Your task to perform on an android device: Open maps Image 0: 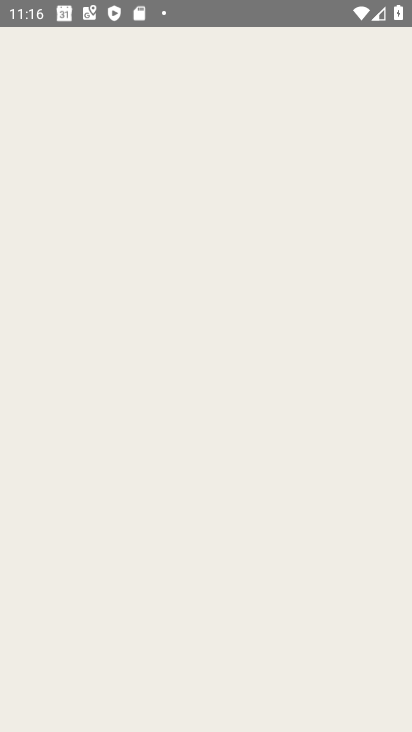
Step 0: press home button
Your task to perform on an android device: Open maps Image 1: 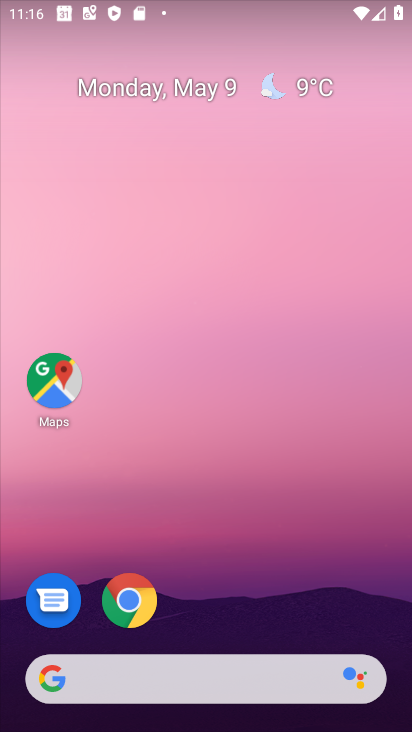
Step 1: click (37, 326)
Your task to perform on an android device: Open maps Image 2: 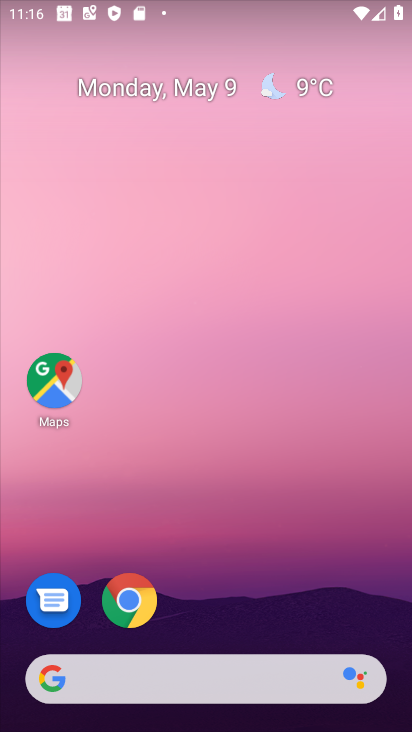
Step 2: click (66, 382)
Your task to perform on an android device: Open maps Image 3: 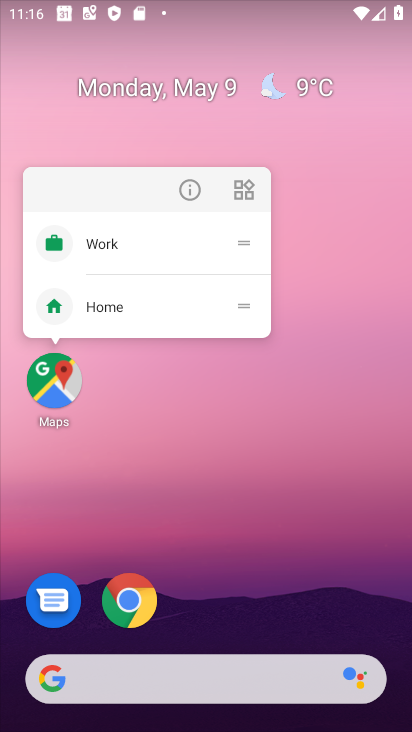
Step 3: drag from (374, 620) to (334, 160)
Your task to perform on an android device: Open maps Image 4: 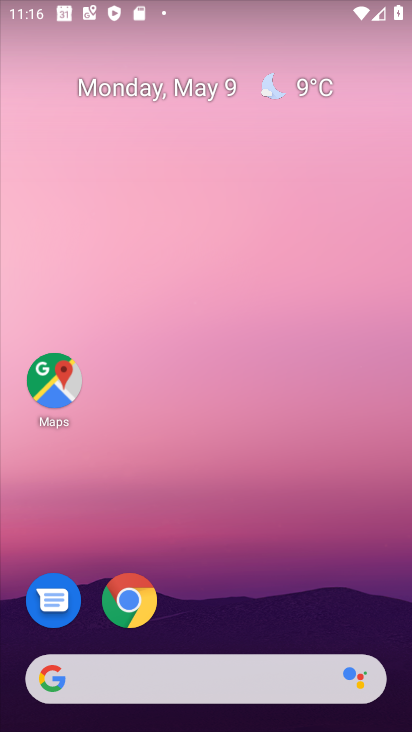
Step 4: drag from (320, 573) to (312, 274)
Your task to perform on an android device: Open maps Image 5: 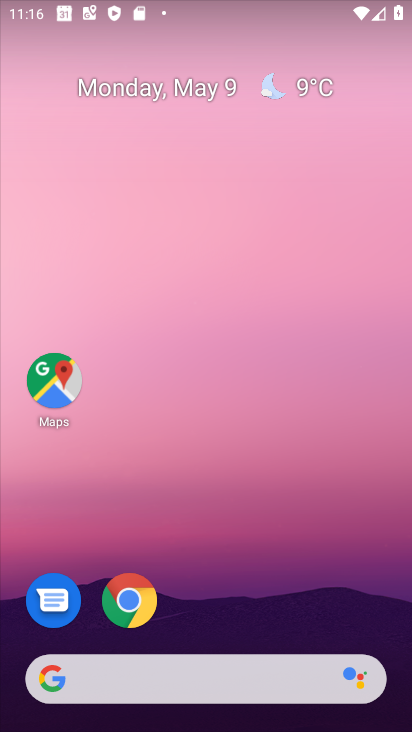
Step 5: drag from (276, 632) to (270, 22)
Your task to perform on an android device: Open maps Image 6: 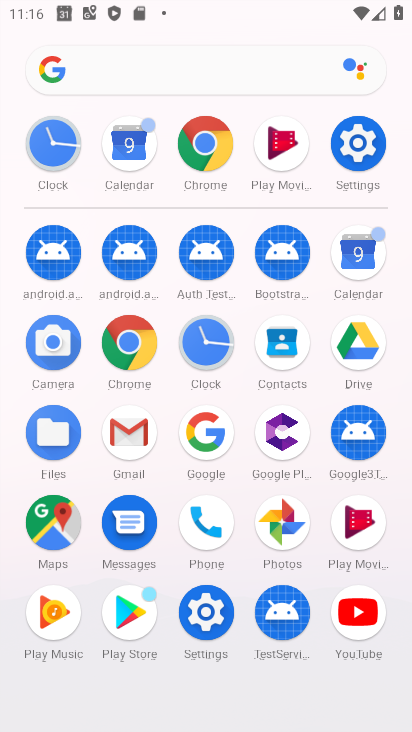
Step 6: click (41, 526)
Your task to perform on an android device: Open maps Image 7: 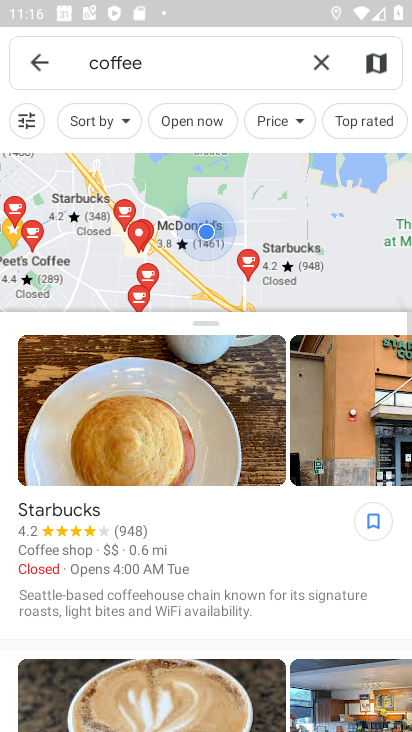
Step 7: task complete